Your task to perform on an android device: Search for pizza restaurants on Maps Image 0: 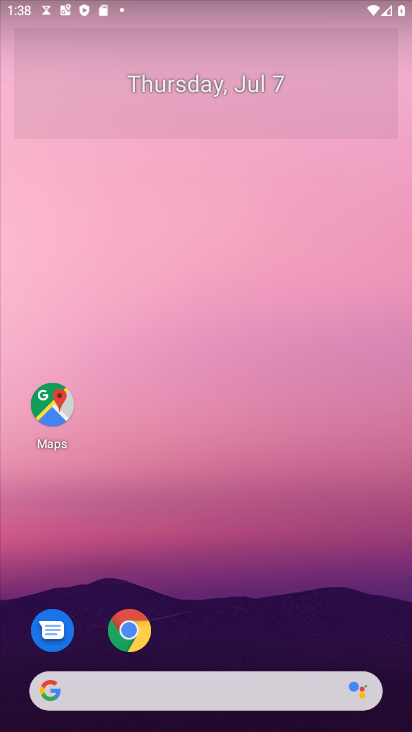
Step 0: drag from (265, 591) to (173, 5)
Your task to perform on an android device: Search for pizza restaurants on Maps Image 1: 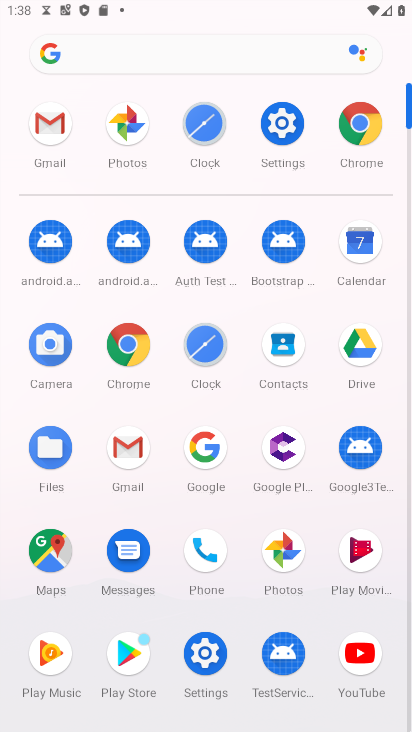
Step 1: click (50, 550)
Your task to perform on an android device: Search for pizza restaurants on Maps Image 2: 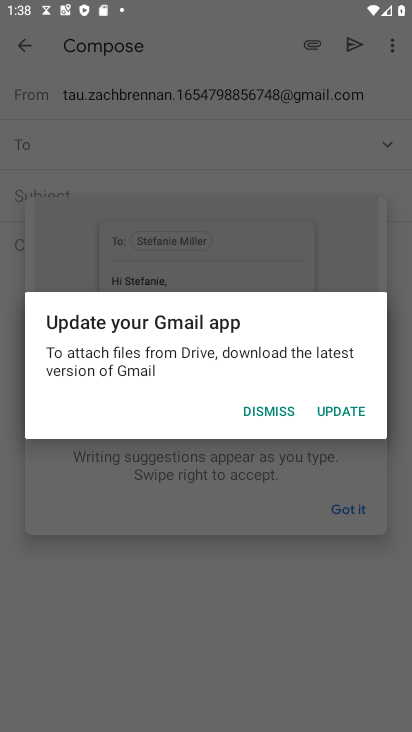
Step 2: press home button
Your task to perform on an android device: Search for pizza restaurants on Maps Image 3: 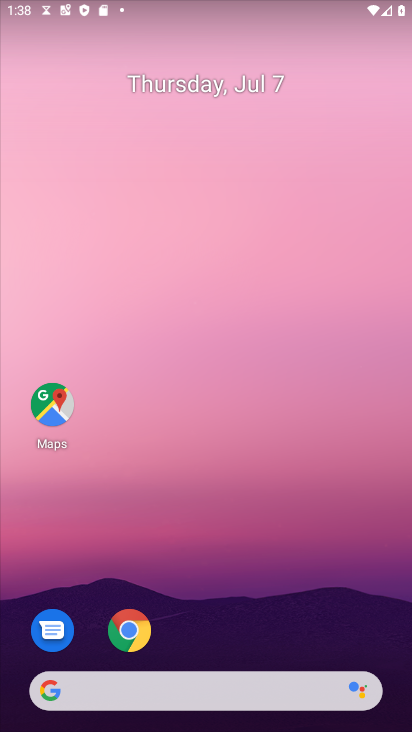
Step 3: click (46, 390)
Your task to perform on an android device: Search for pizza restaurants on Maps Image 4: 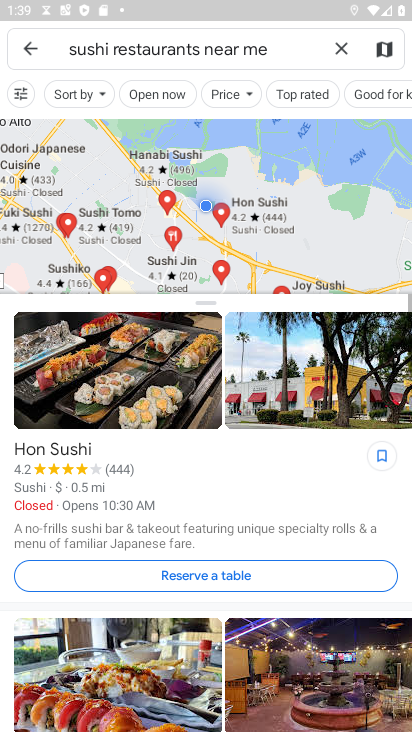
Step 4: click (339, 52)
Your task to perform on an android device: Search for pizza restaurants on Maps Image 5: 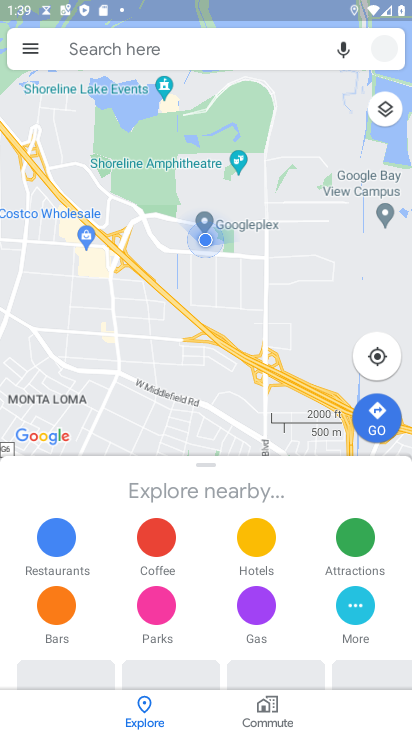
Step 5: click (192, 51)
Your task to perform on an android device: Search for pizza restaurants on Maps Image 6: 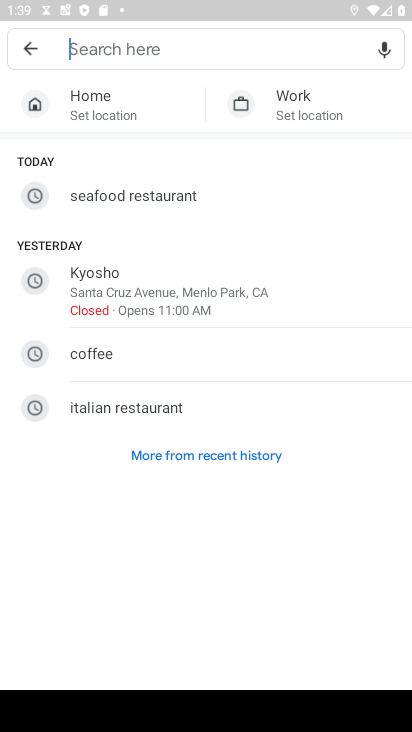
Step 6: type "pizza restaurants"
Your task to perform on an android device: Search for pizza restaurants on Maps Image 7: 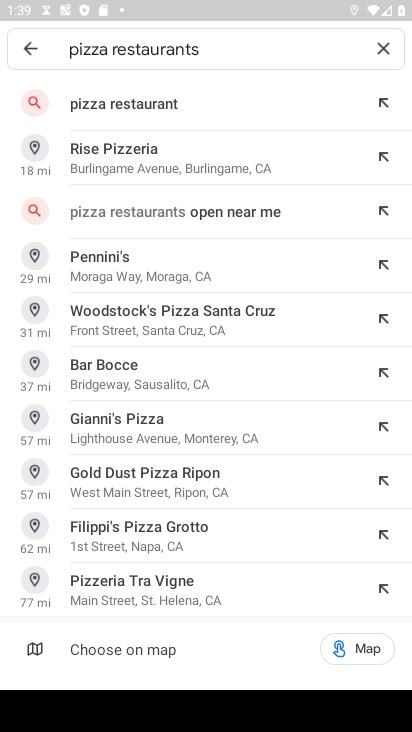
Step 7: click (162, 99)
Your task to perform on an android device: Search for pizza restaurants on Maps Image 8: 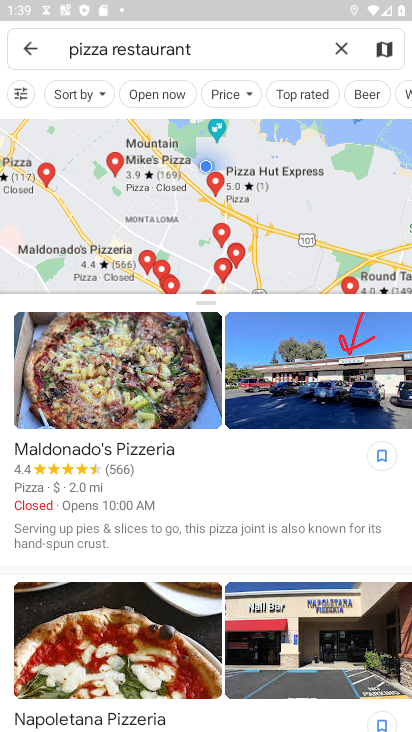
Step 8: task complete